Your task to perform on an android device: change the clock display to digital Image 0: 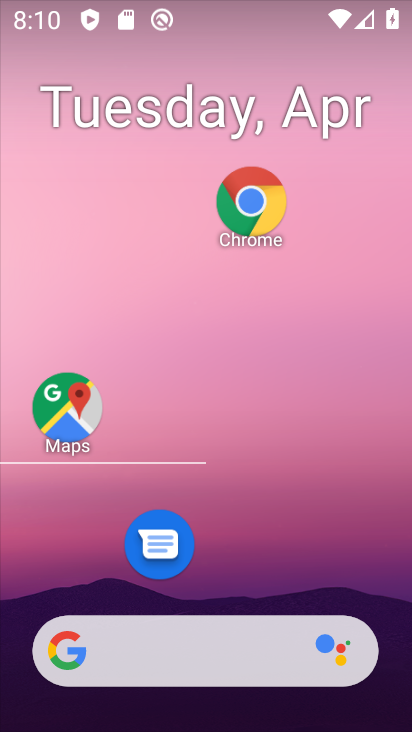
Step 0: drag from (302, 259) to (291, 51)
Your task to perform on an android device: change the clock display to digital Image 1: 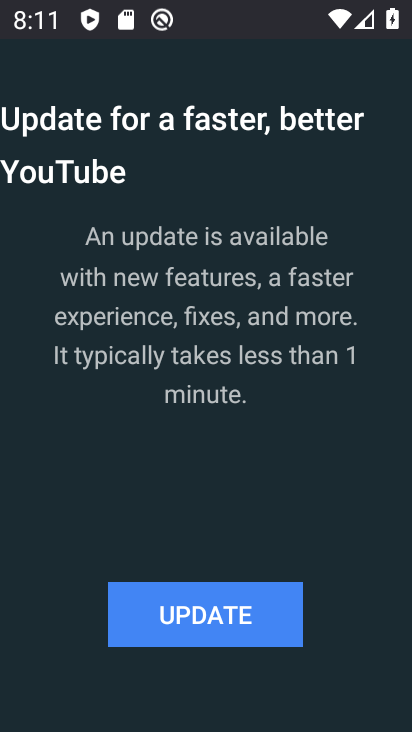
Step 1: press home button
Your task to perform on an android device: change the clock display to digital Image 2: 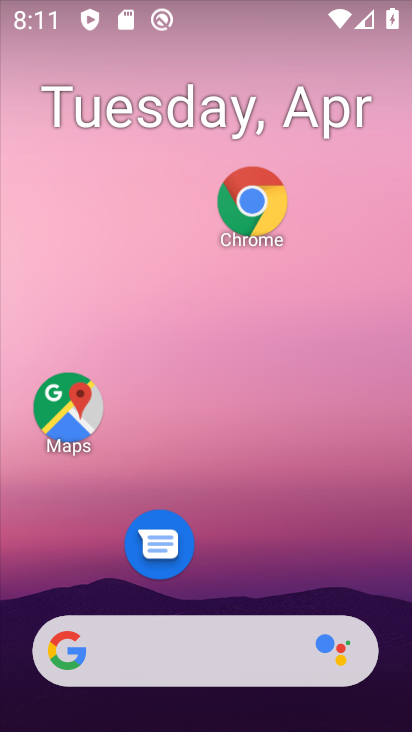
Step 2: drag from (263, 41) to (263, 5)
Your task to perform on an android device: change the clock display to digital Image 3: 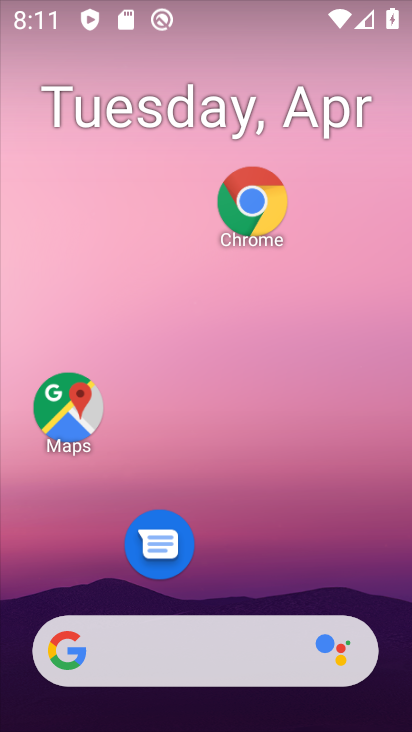
Step 3: drag from (259, 508) to (328, 9)
Your task to perform on an android device: change the clock display to digital Image 4: 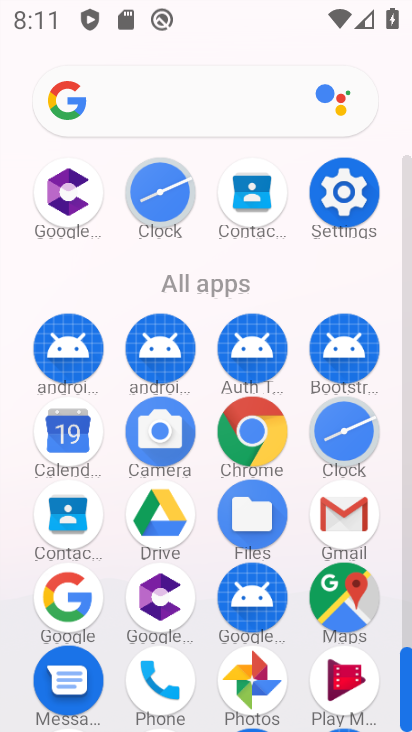
Step 4: click (352, 432)
Your task to perform on an android device: change the clock display to digital Image 5: 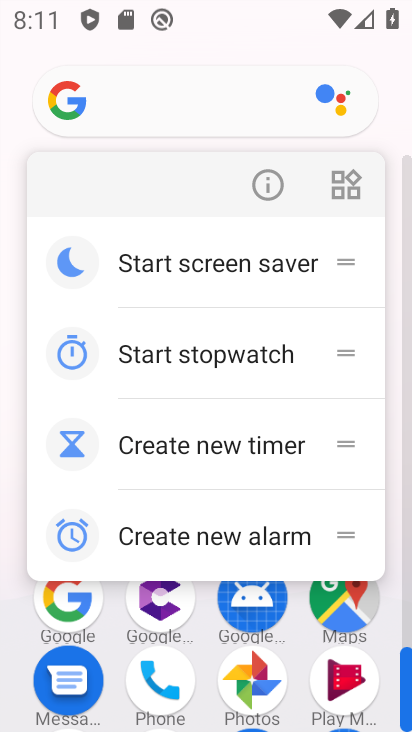
Step 5: click (315, 629)
Your task to perform on an android device: change the clock display to digital Image 6: 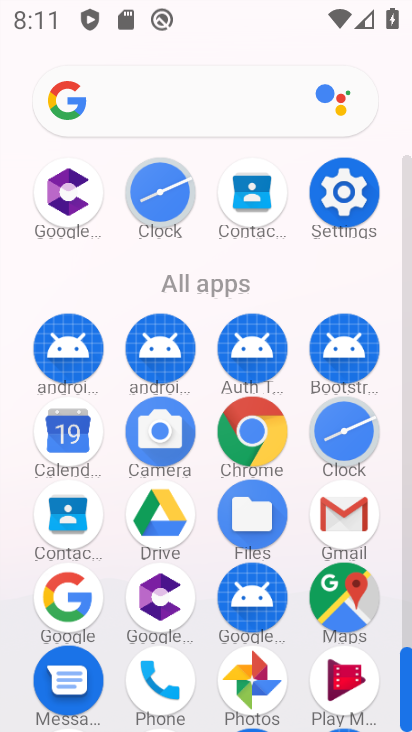
Step 6: click (355, 421)
Your task to perform on an android device: change the clock display to digital Image 7: 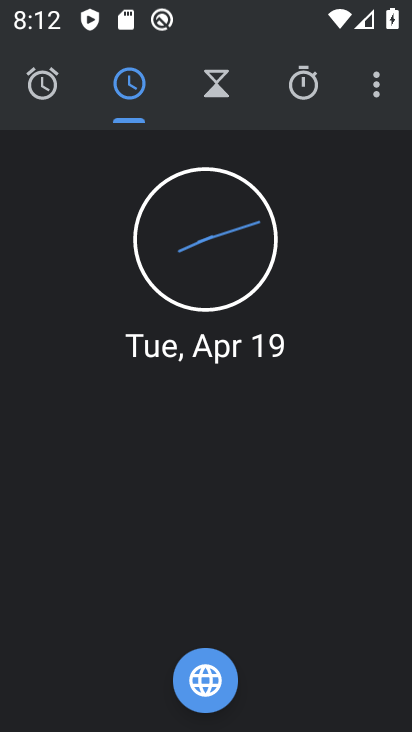
Step 7: click (380, 84)
Your task to perform on an android device: change the clock display to digital Image 8: 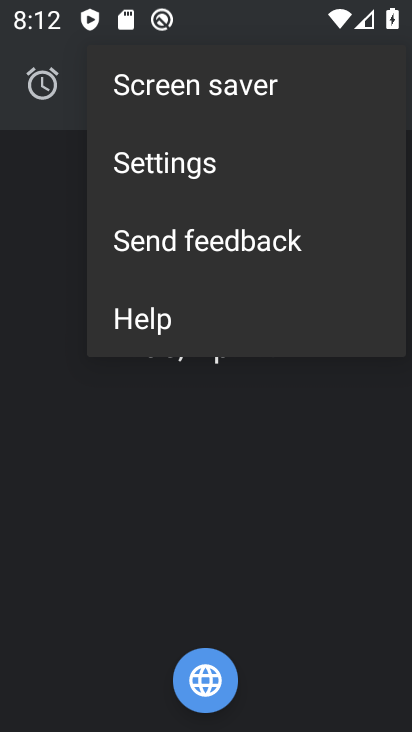
Step 8: click (264, 164)
Your task to perform on an android device: change the clock display to digital Image 9: 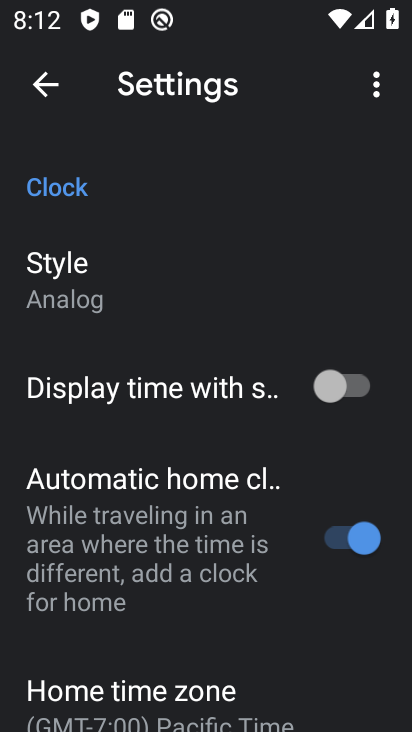
Step 9: click (113, 290)
Your task to perform on an android device: change the clock display to digital Image 10: 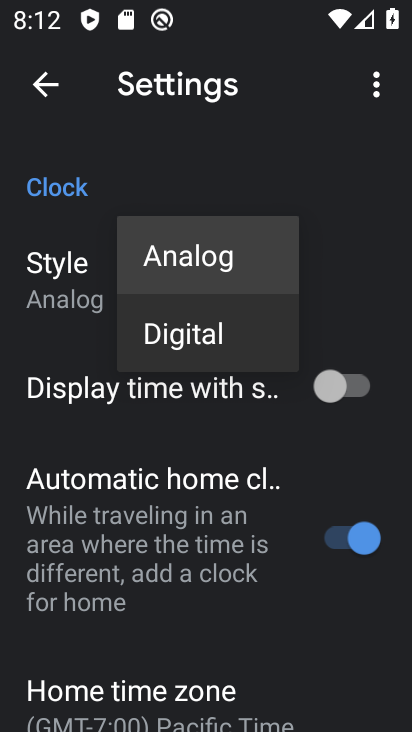
Step 10: click (200, 336)
Your task to perform on an android device: change the clock display to digital Image 11: 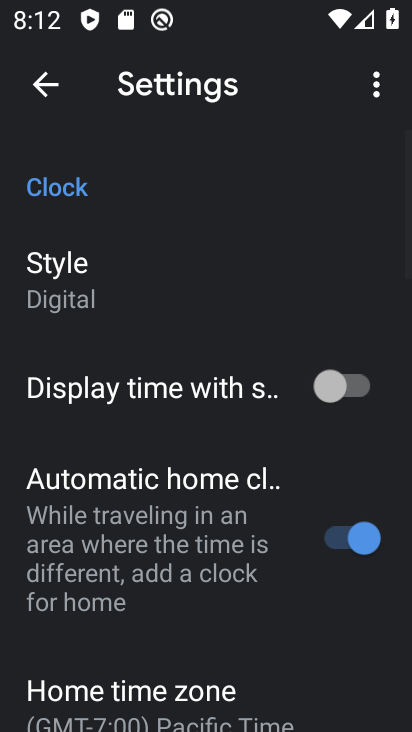
Step 11: task complete